Your task to perform on an android device: turn off smart reply in the gmail app Image 0: 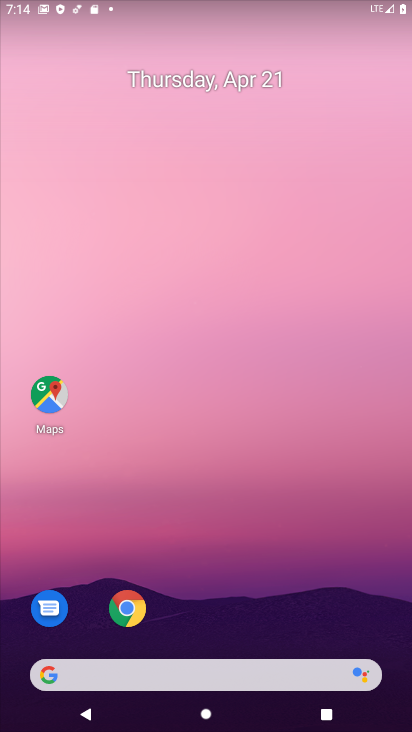
Step 0: drag from (259, 594) to (220, 204)
Your task to perform on an android device: turn off smart reply in the gmail app Image 1: 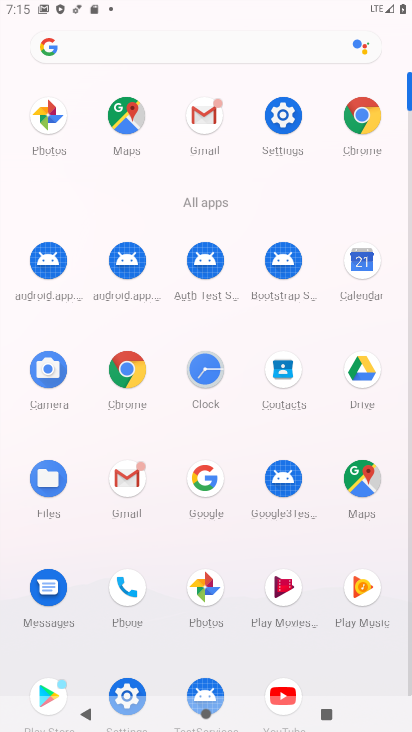
Step 1: click (207, 110)
Your task to perform on an android device: turn off smart reply in the gmail app Image 2: 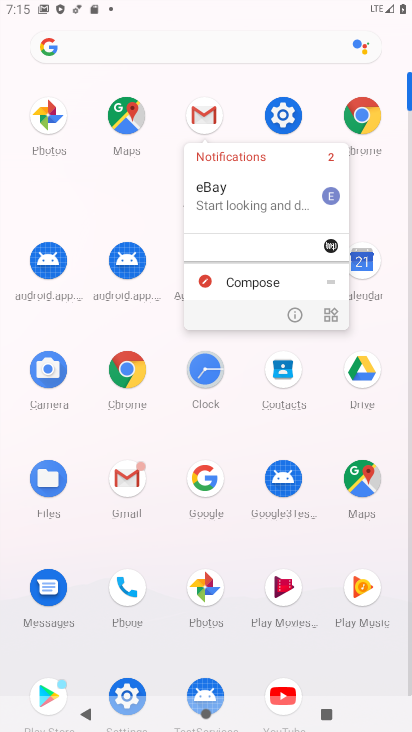
Step 2: click (182, 184)
Your task to perform on an android device: turn off smart reply in the gmail app Image 3: 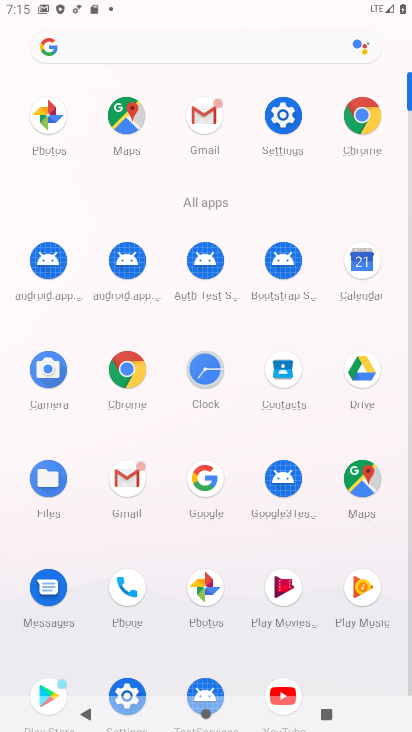
Step 3: click (208, 123)
Your task to perform on an android device: turn off smart reply in the gmail app Image 4: 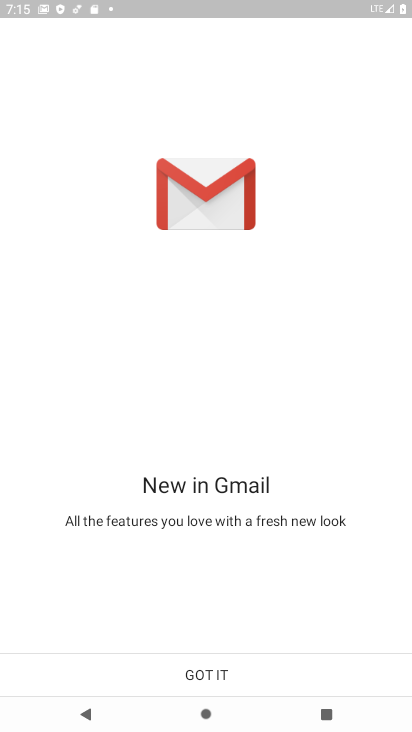
Step 4: click (204, 675)
Your task to perform on an android device: turn off smart reply in the gmail app Image 5: 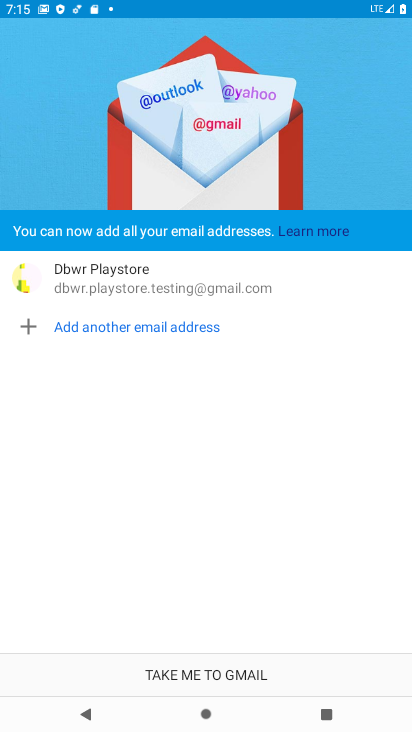
Step 5: click (213, 677)
Your task to perform on an android device: turn off smart reply in the gmail app Image 6: 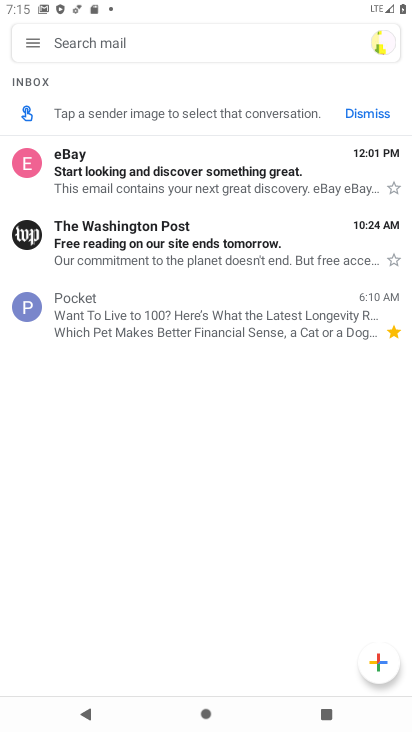
Step 6: click (29, 39)
Your task to perform on an android device: turn off smart reply in the gmail app Image 7: 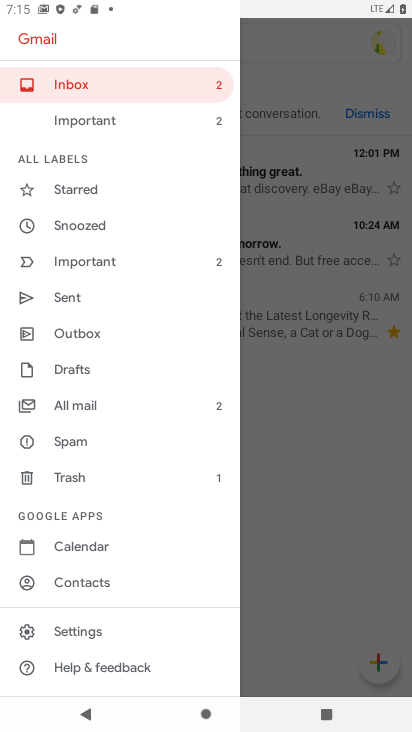
Step 7: click (74, 632)
Your task to perform on an android device: turn off smart reply in the gmail app Image 8: 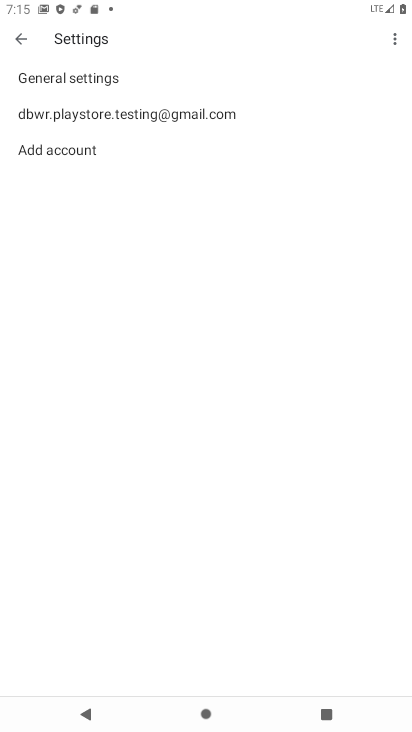
Step 8: click (107, 109)
Your task to perform on an android device: turn off smart reply in the gmail app Image 9: 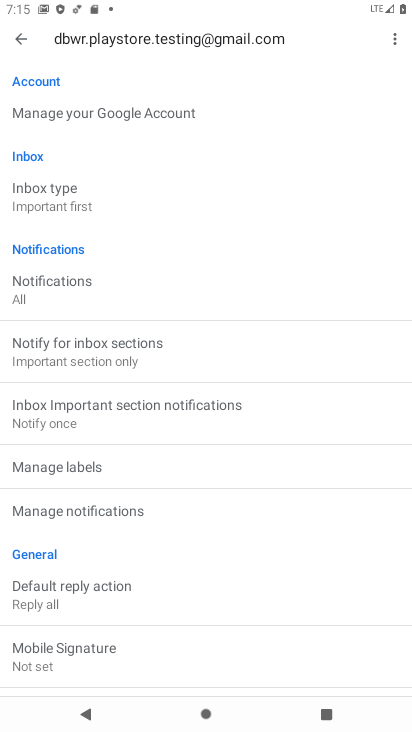
Step 9: drag from (151, 516) to (167, 273)
Your task to perform on an android device: turn off smart reply in the gmail app Image 10: 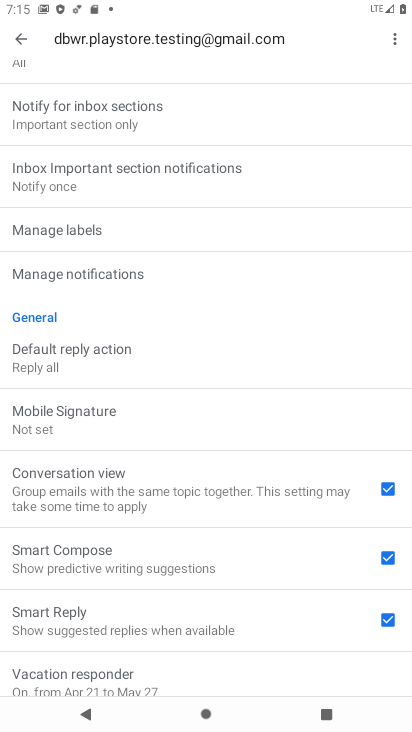
Step 10: click (384, 613)
Your task to perform on an android device: turn off smart reply in the gmail app Image 11: 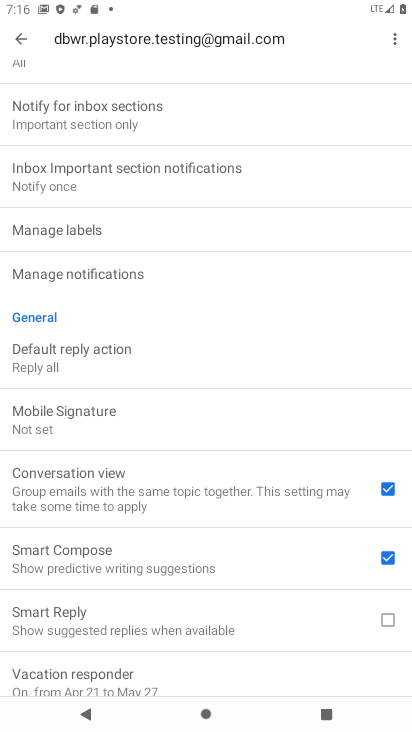
Step 11: task complete